Your task to perform on an android device: open sync settings in chrome Image 0: 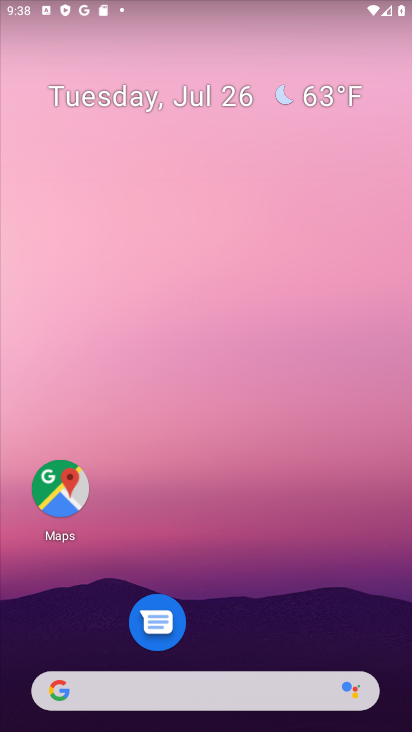
Step 0: drag from (302, 644) to (338, 8)
Your task to perform on an android device: open sync settings in chrome Image 1: 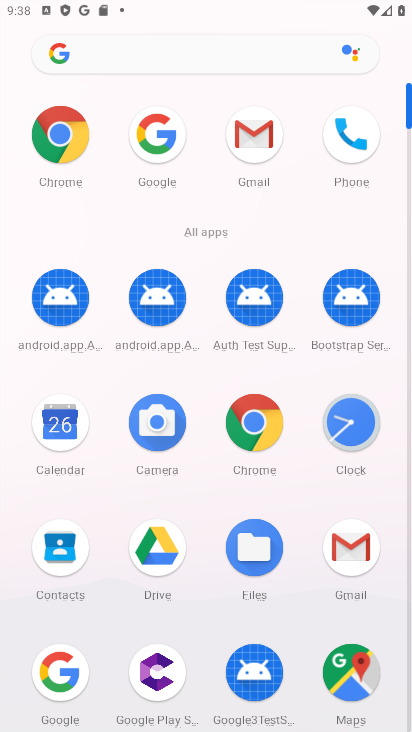
Step 1: click (228, 407)
Your task to perform on an android device: open sync settings in chrome Image 2: 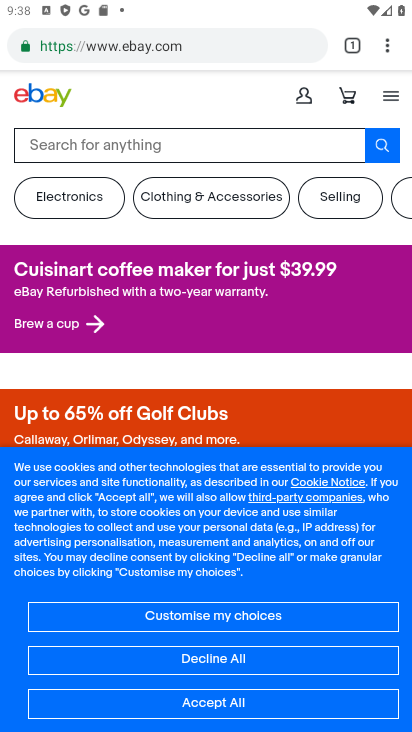
Step 2: drag from (395, 40) to (244, 556)
Your task to perform on an android device: open sync settings in chrome Image 3: 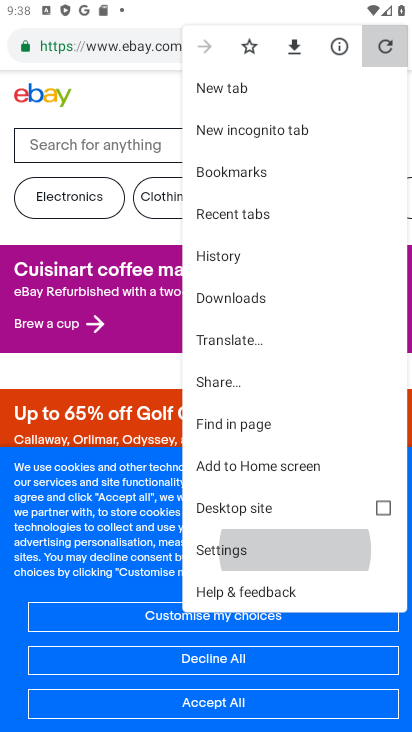
Step 3: drag from (386, 47) to (244, 555)
Your task to perform on an android device: open sync settings in chrome Image 4: 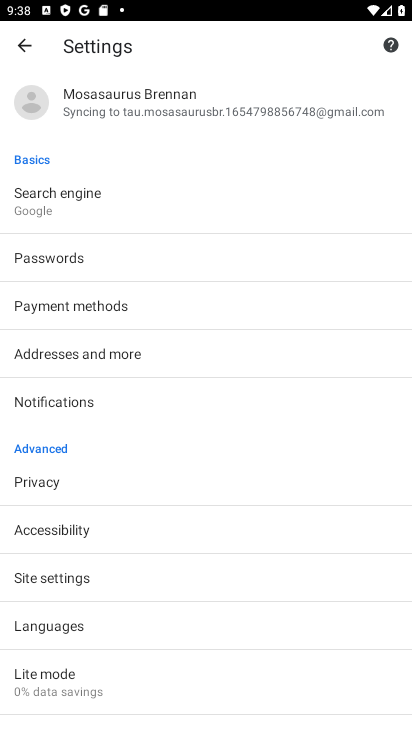
Step 4: click (108, 587)
Your task to perform on an android device: open sync settings in chrome Image 5: 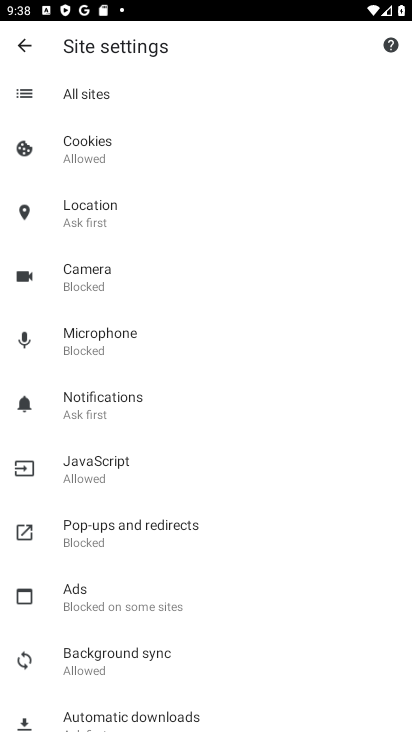
Step 5: click (169, 653)
Your task to perform on an android device: open sync settings in chrome Image 6: 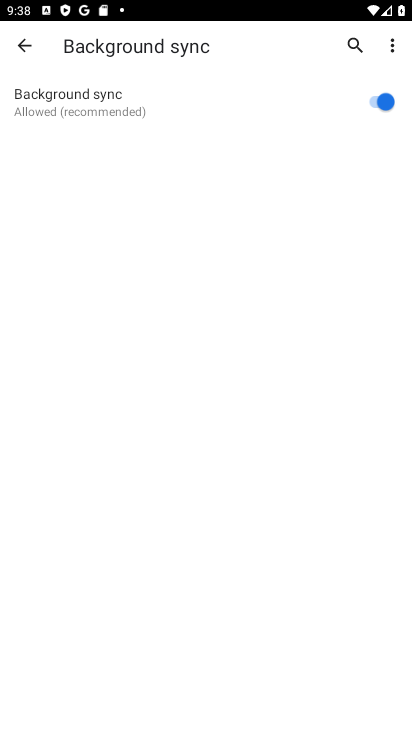
Step 6: task complete